Your task to perform on an android device: turn pop-ups on in chrome Image 0: 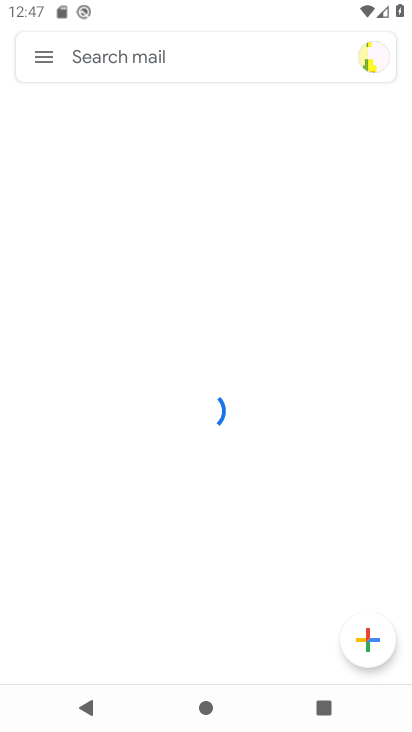
Step 0: press home button
Your task to perform on an android device: turn pop-ups on in chrome Image 1: 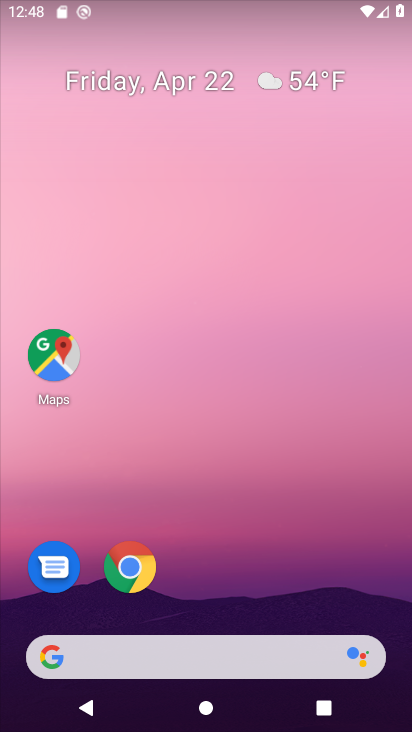
Step 1: drag from (278, 599) to (334, 211)
Your task to perform on an android device: turn pop-ups on in chrome Image 2: 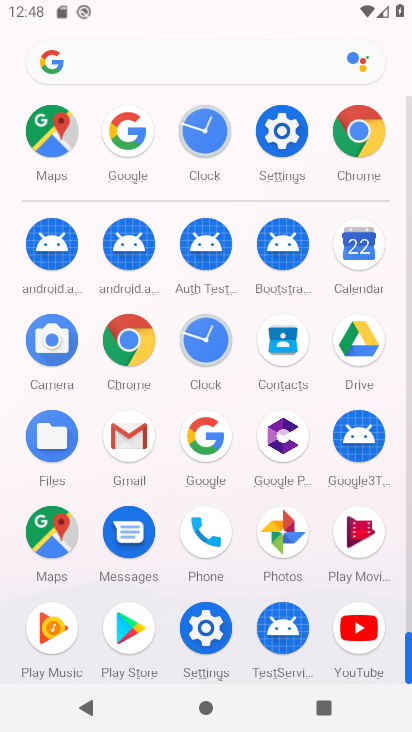
Step 2: click (357, 158)
Your task to perform on an android device: turn pop-ups on in chrome Image 3: 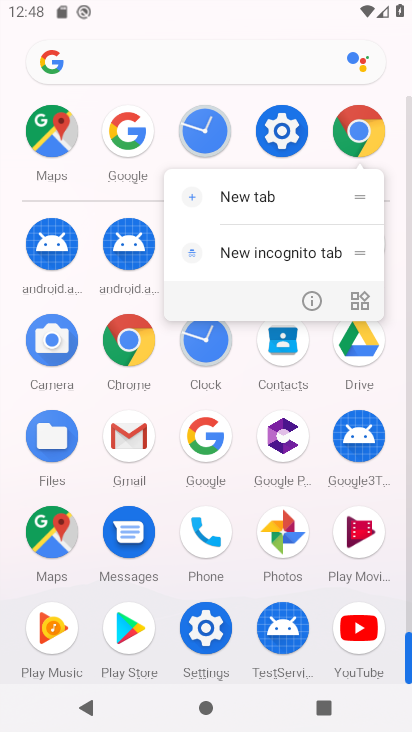
Step 3: click (358, 157)
Your task to perform on an android device: turn pop-ups on in chrome Image 4: 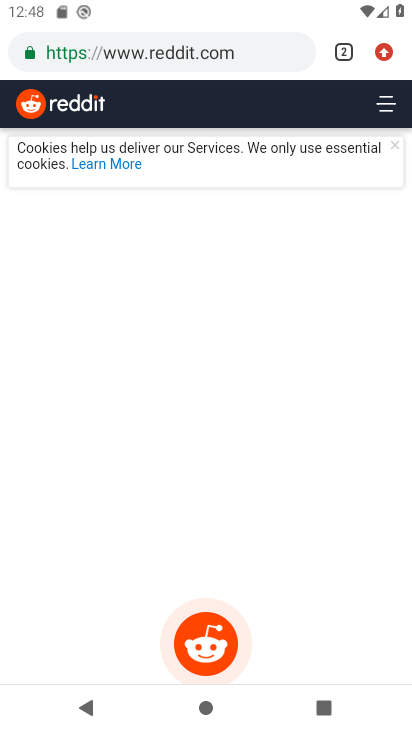
Step 4: click (382, 58)
Your task to perform on an android device: turn pop-ups on in chrome Image 5: 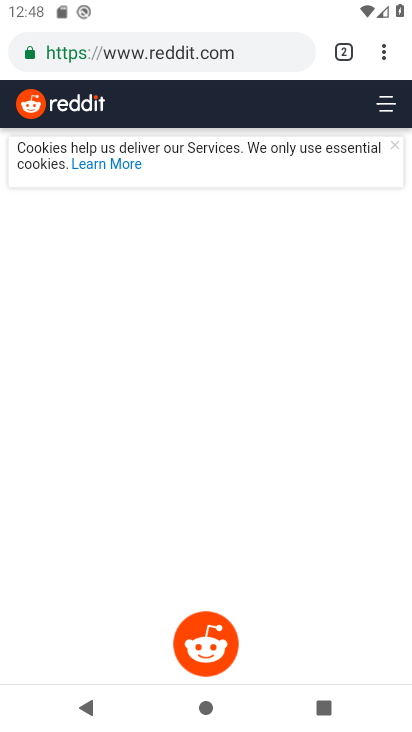
Step 5: click (382, 58)
Your task to perform on an android device: turn pop-ups on in chrome Image 6: 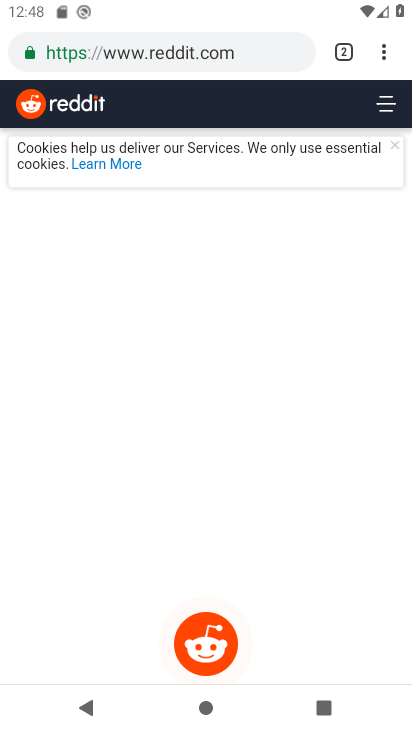
Step 6: click (382, 58)
Your task to perform on an android device: turn pop-ups on in chrome Image 7: 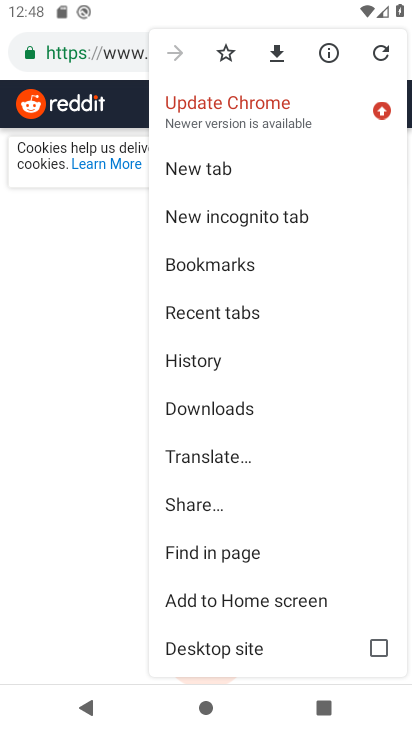
Step 7: drag from (257, 499) to (269, 298)
Your task to perform on an android device: turn pop-ups on in chrome Image 8: 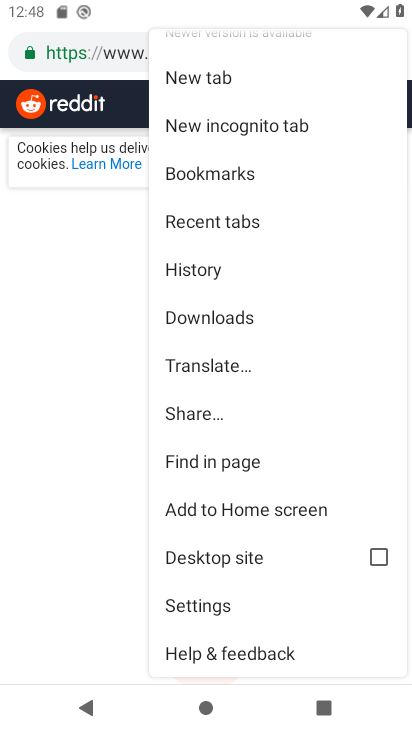
Step 8: click (210, 614)
Your task to perform on an android device: turn pop-ups on in chrome Image 9: 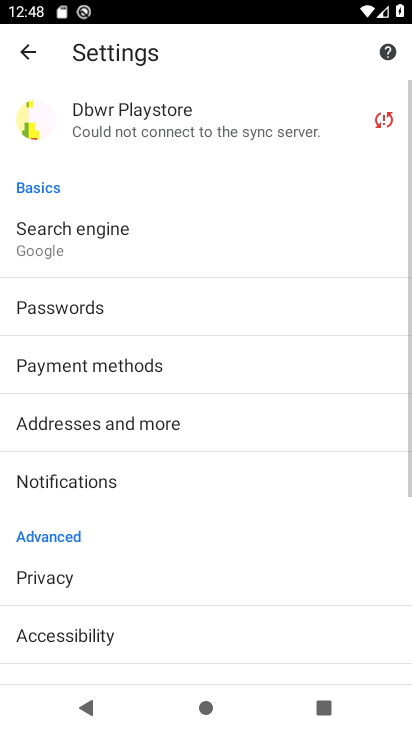
Step 9: drag from (210, 614) to (216, 485)
Your task to perform on an android device: turn pop-ups on in chrome Image 10: 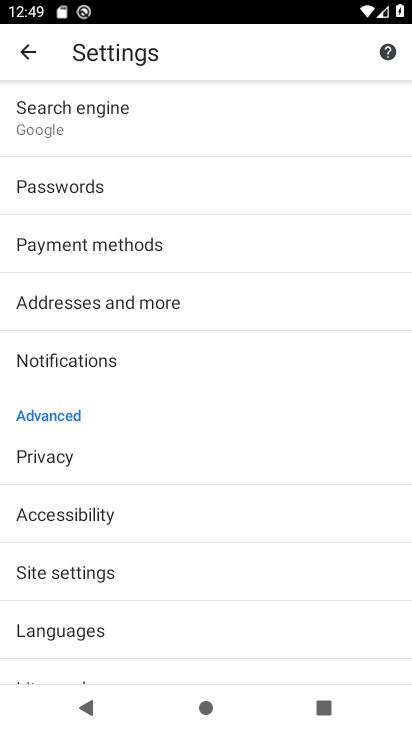
Step 10: click (142, 586)
Your task to perform on an android device: turn pop-ups on in chrome Image 11: 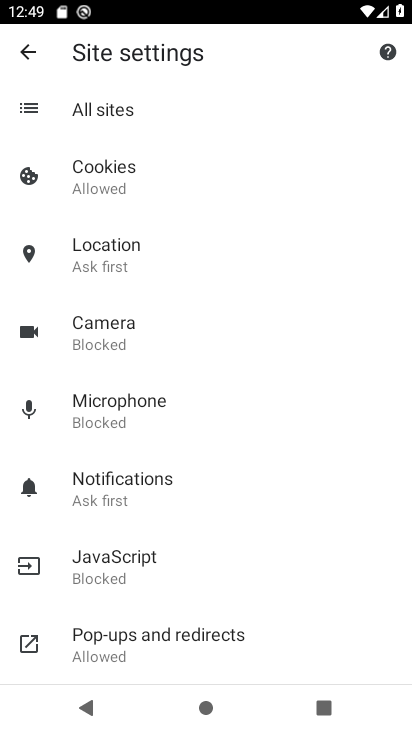
Step 11: click (177, 633)
Your task to perform on an android device: turn pop-ups on in chrome Image 12: 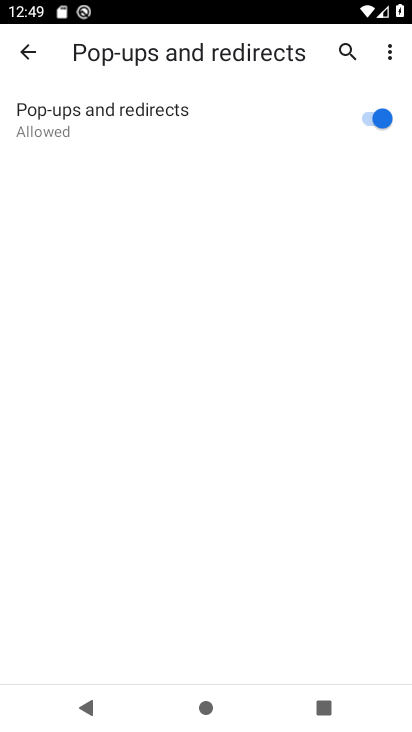
Step 12: task complete